Your task to perform on an android device: Go to CNN.com Image 0: 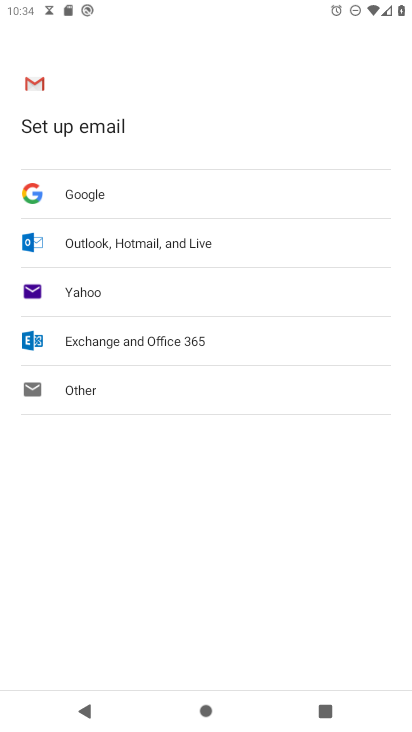
Step 0: press back button
Your task to perform on an android device: Go to CNN.com Image 1: 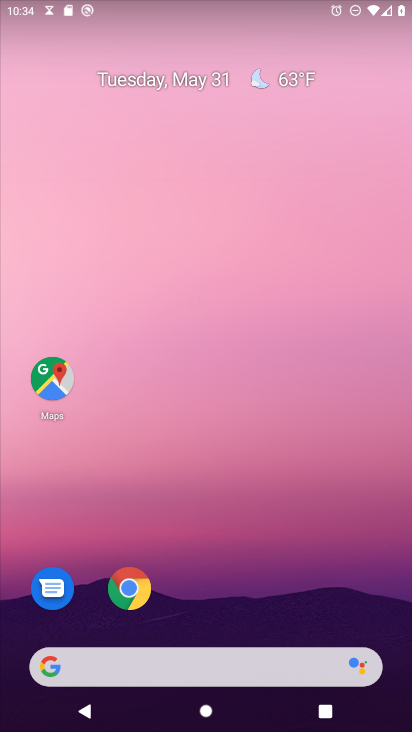
Step 1: click (128, 589)
Your task to perform on an android device: Go to CNN.com Image 2: 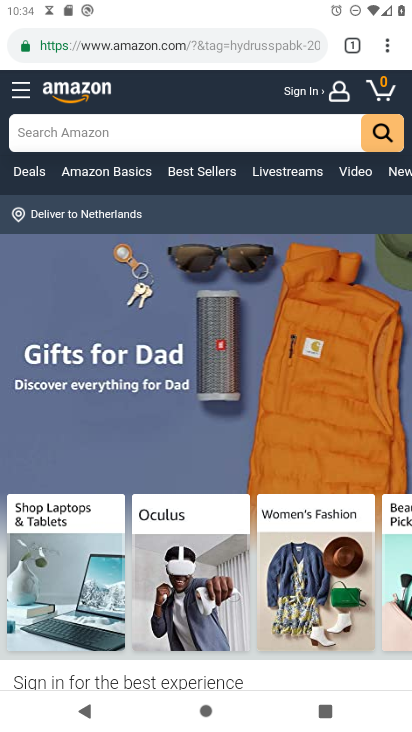
Step 2: click (250, 49)
Your task to perform on an android device: Go to CNN.com Image 3: 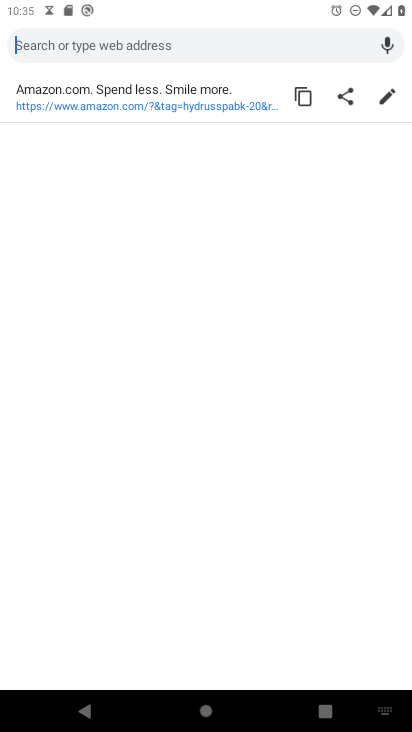
Step 3: type "CNN.com"
Your task to perform on an android device: Go to CNN.com Image 4: 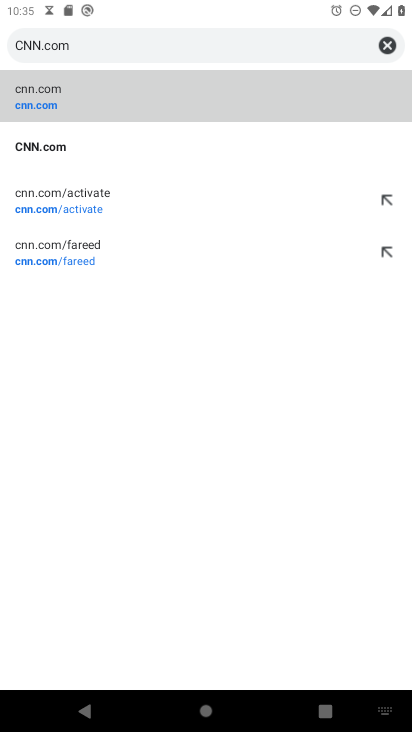
Step 4: click (64, 146)
Your task to perform on an android device: Go to CNN.com Image 5: 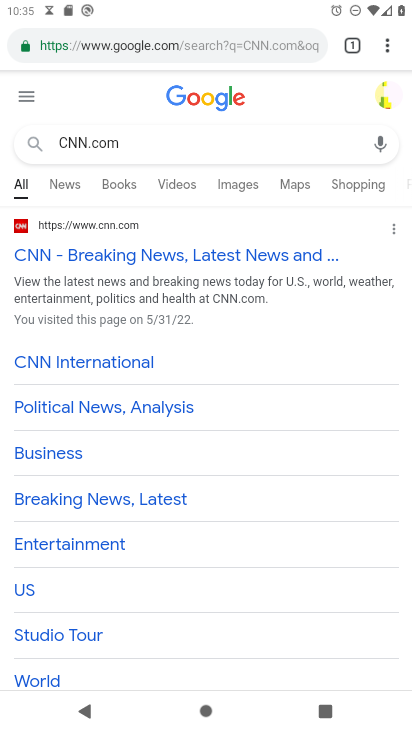
Step 5: click (129, 262)
Your task to perform on an android device: Go to CNN.com Image 6: 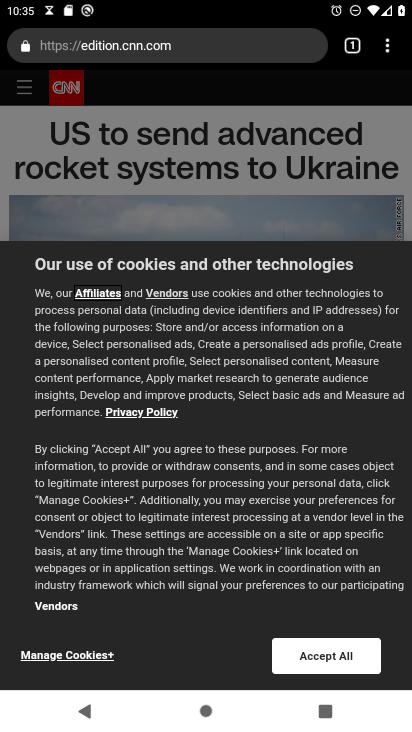
Step 6: click (301, 655)
Your task to perform on an android device: Go to CNN.com Image 7: 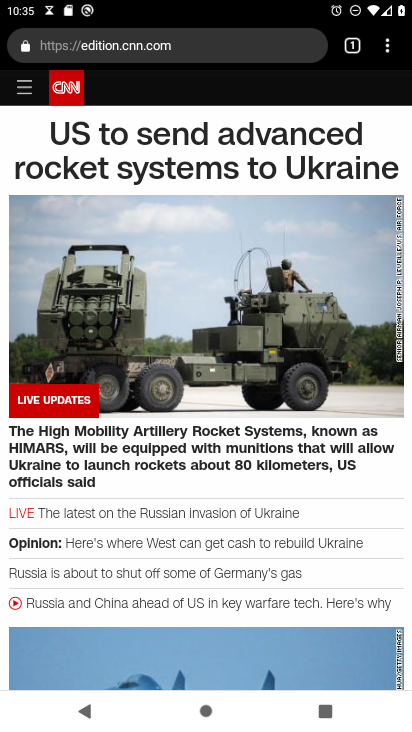
Step 7: task complete